Your task to perform on an android device: Open network settings Image 0: 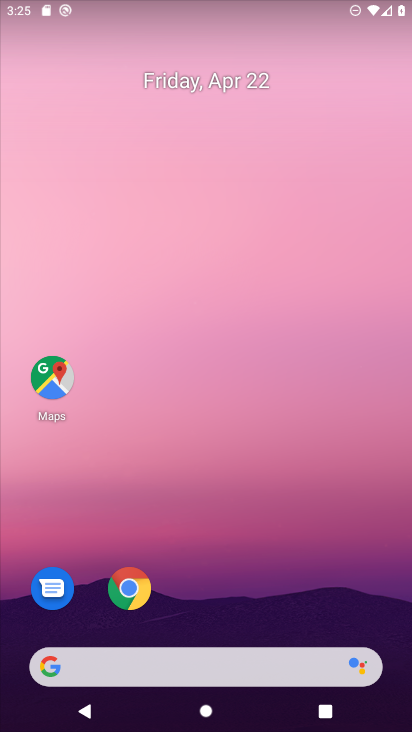
Step 0: drag from (191, 535) to (198, 102)
Your task to perform on an android device: Open network settings Image 1: 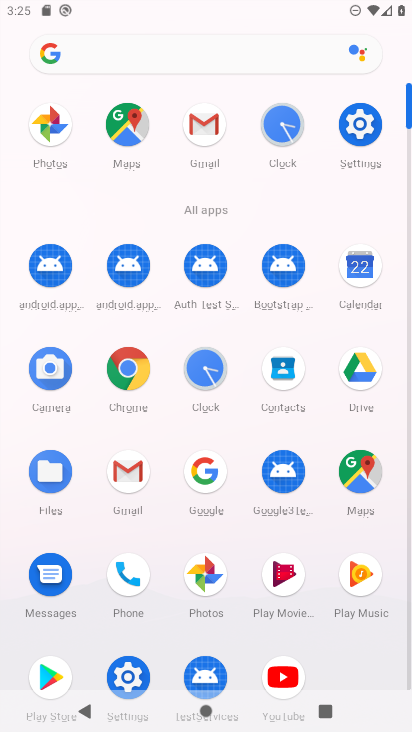
Step 1: click (359, 134)
Your task to perform on an android device: Open network settings Image 2: 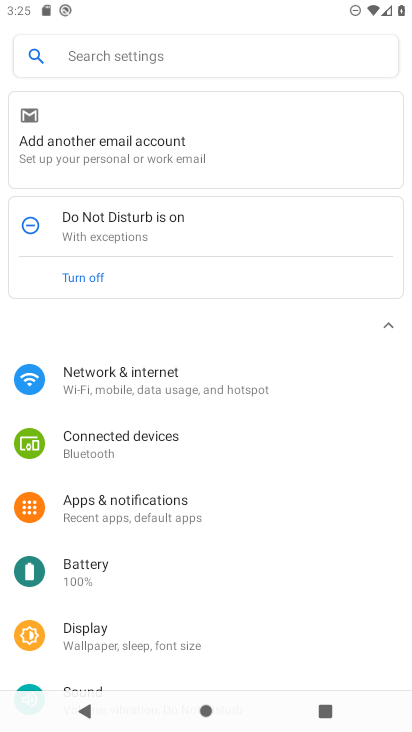
Step 2: click (196, 382)
Your task to perform on an android device: Open network settings Image 3: 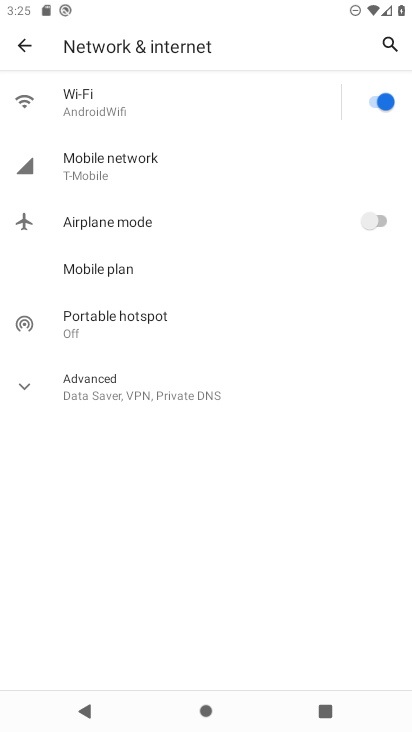
Step 3: task complete